Your task to perform on an android device: check android version Image 0: 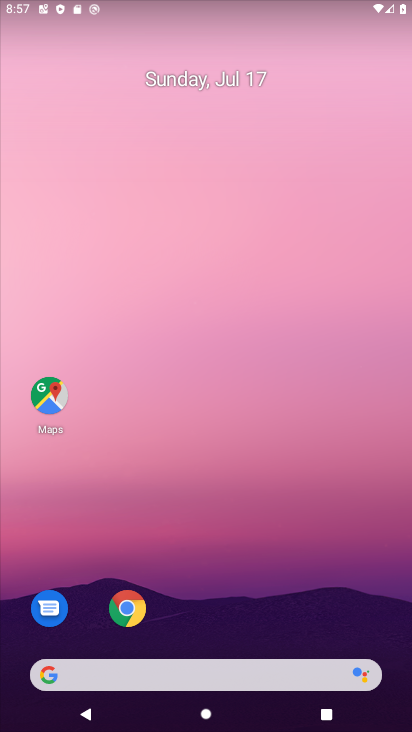
Step 0: drag from (213, 681) to (275, 124)
Your task to perform on an android device: check android version Image 1: 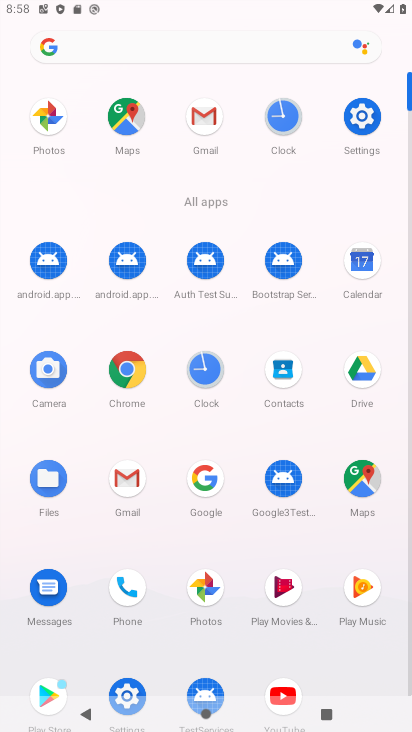
Step 1: click (363, 116)
Your task to perform on an android device: check android version Image 2: 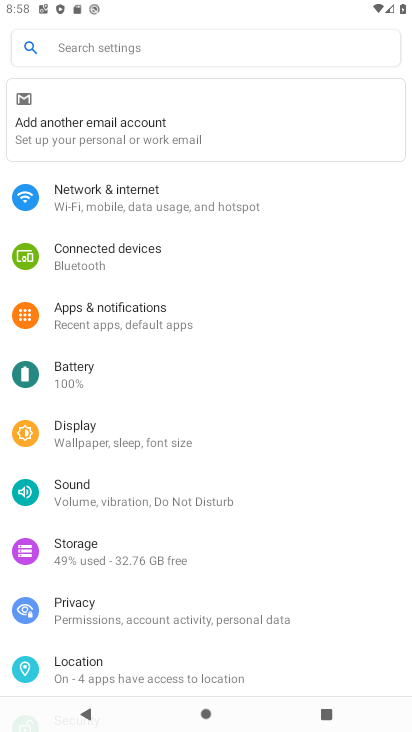
Step 2: drag from (177, 537) to (236, 439)
Your task to perform on an android device: check android version Image 3: 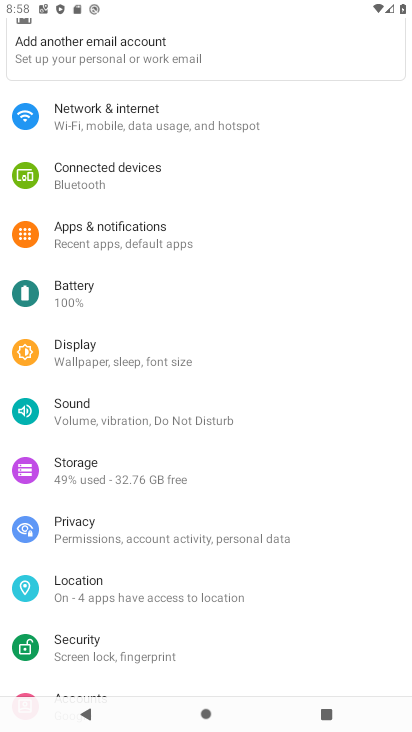
Step 3: drag from (96, 619) to (210, 491)
Your task to perform on an android device: check android version Image 4: 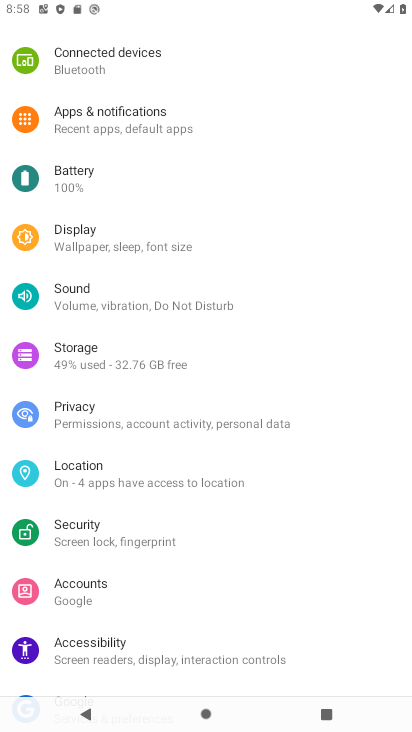
Step 4: drag from (122, 586) to (268, 384)
Your task to perform on an android device: check android version Image 5: 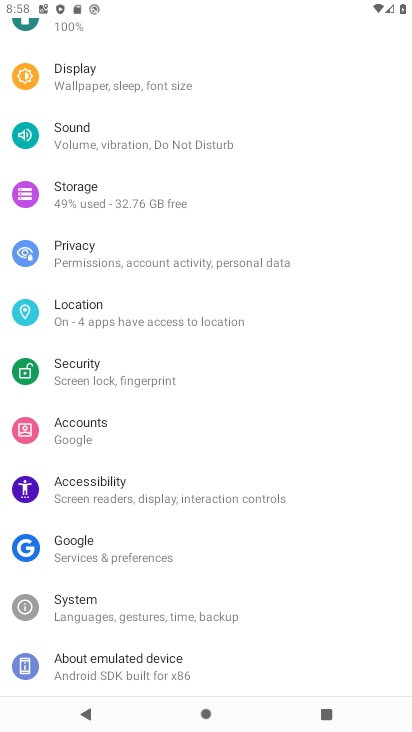
Step 5: click (100, 663)
Your task to perform on an android device: check android version Image 6: 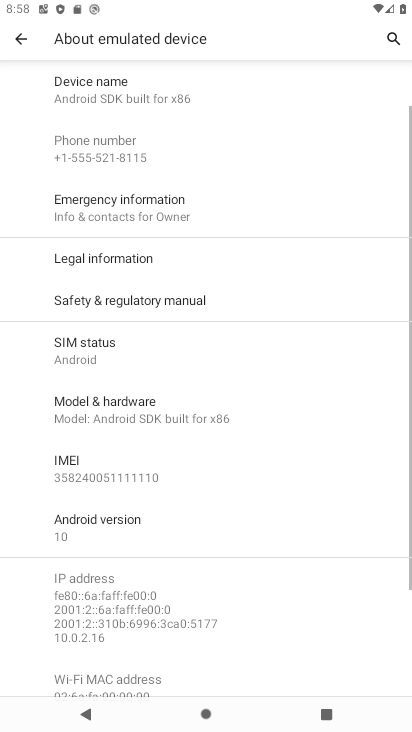
Step 6: click (130, 525)
Your task to perform on an android device: check android version Image 7: 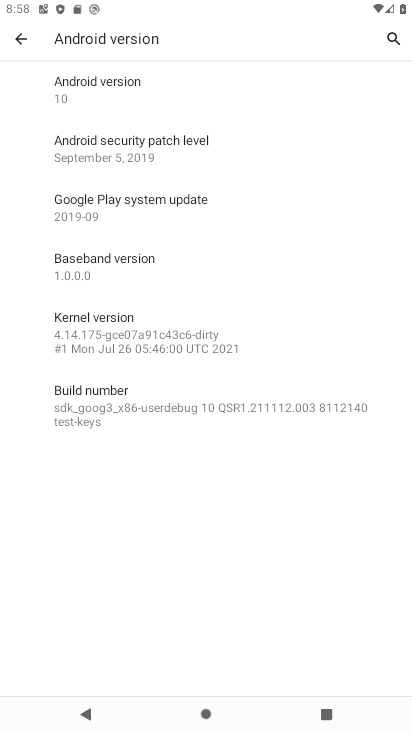
Step 7: task complete